Your task to perform on an android device: open wifi settings Image 0: 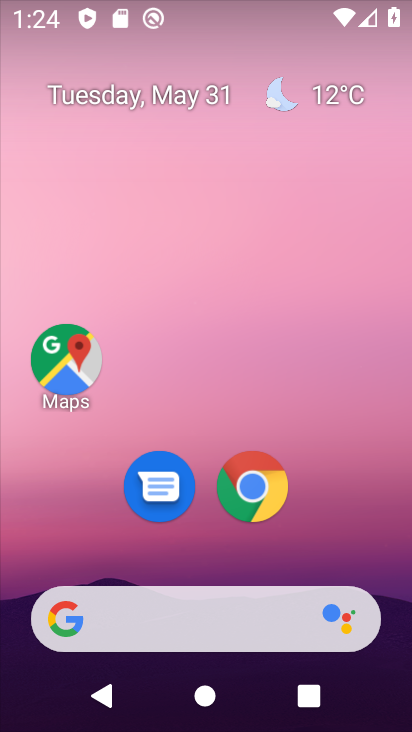
Step 0: drag from (212, 567) to (206, 239)
Your task to perform on an android device: open wifi settings Image 1: 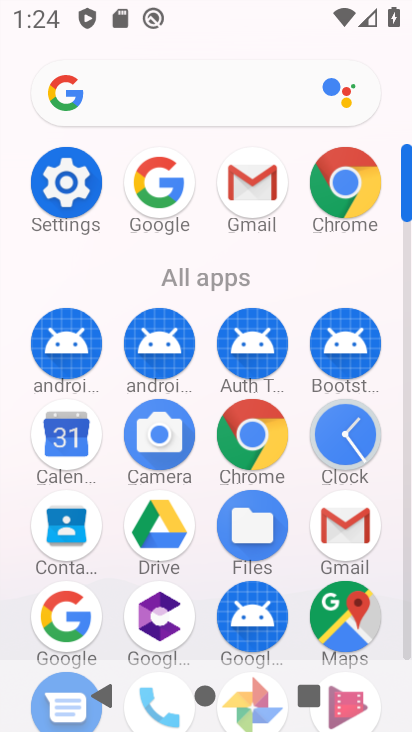
Step 1: click (69, 183)
Your task to perform on an android device: open wifi settings Image 2: 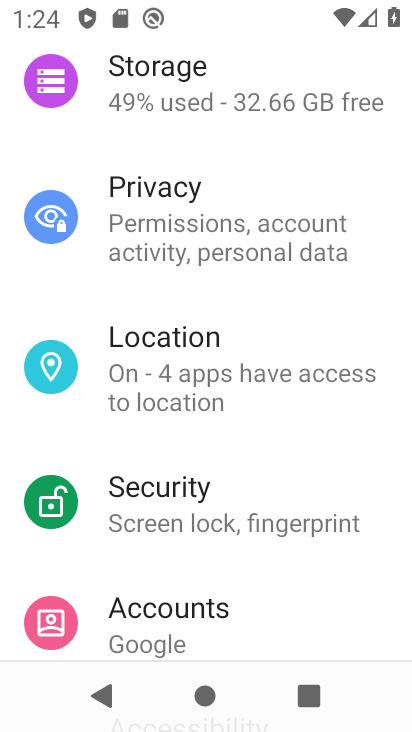
Step 2: drag from (171, 212) to (186, 500)
Your task to perform on an android device: open wifi settings Image 3: 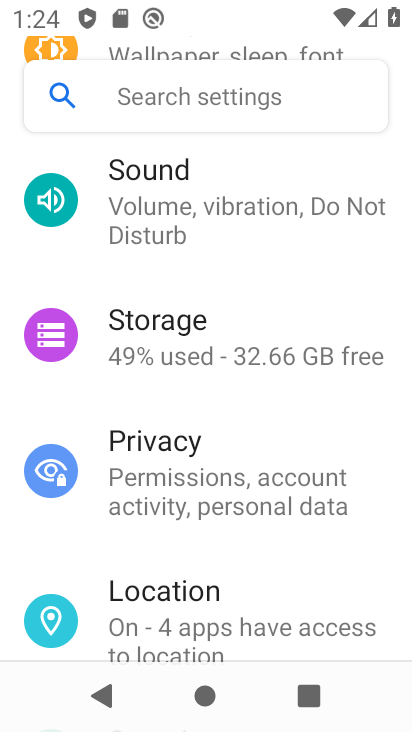
Step 3: drag from (211, 282) to (216, 569)
Your task to perform on an android device: open wifi settings Image 4: 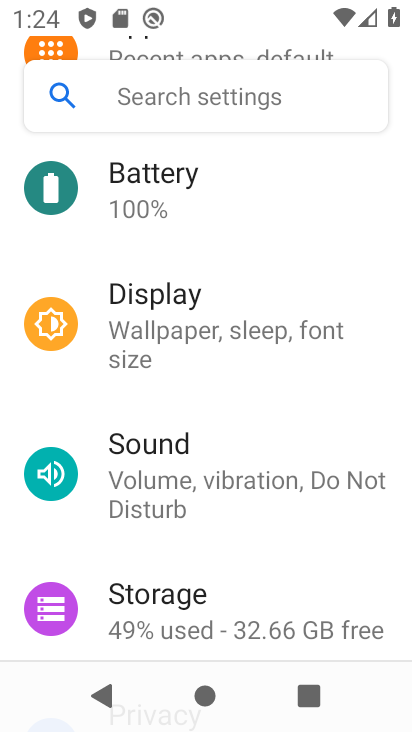
Step 4: drag from (208, 338) to (184, 592)
Your task to perform on an android device: open wifi settings Image 5: 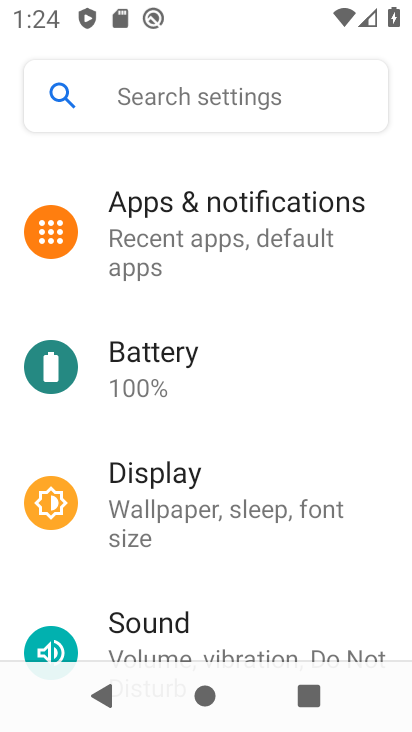
Step 5: drag from (213, 291) to (208, 618)
Your task to perform on an android device: open wifi settings Image 6: 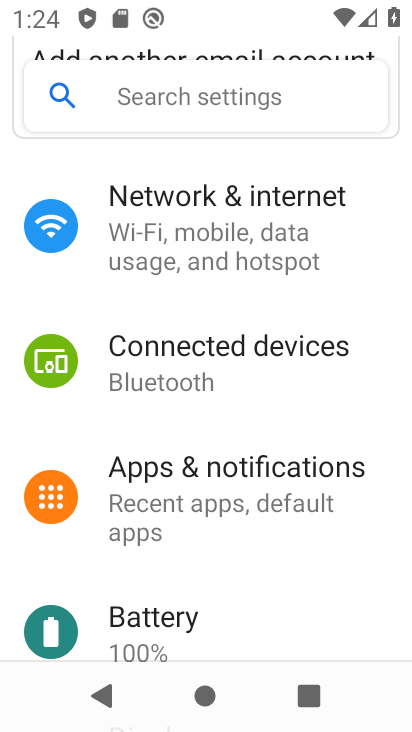
Step 6: click (175, 229)
Your task to perform on an android device: open wifi settings Image 7: 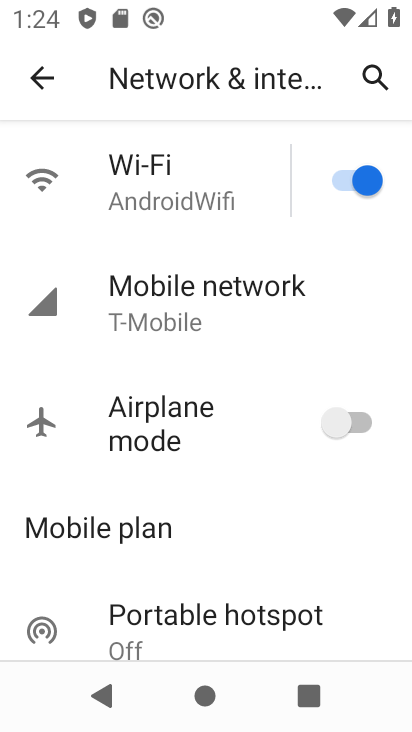
Step 7: click (185, 219)
Your task to perform on an android device: open wifi settings Image 8: 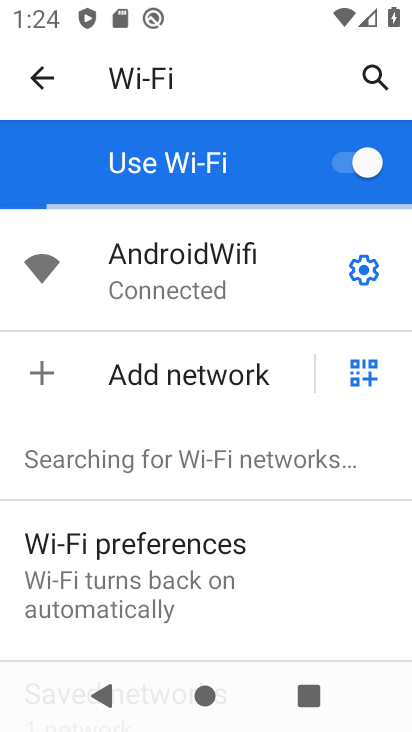
Step 8: task complete